Your task to perform on an android device: Go to ESPN.com Image 0: 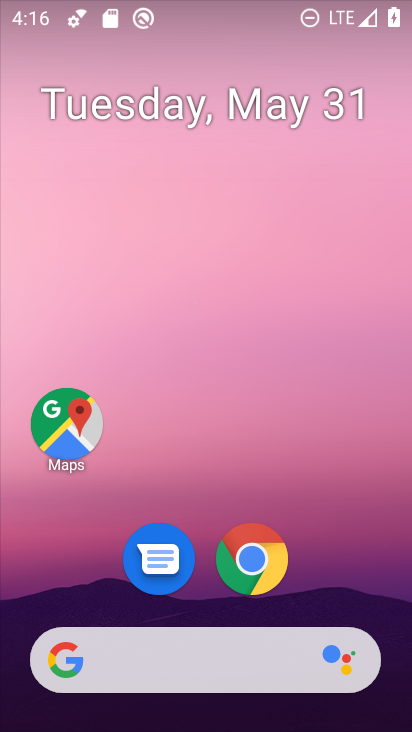
Step 0: click (253, 568)
Your task to perform on an android device: Go to ESPN.com Image 1: 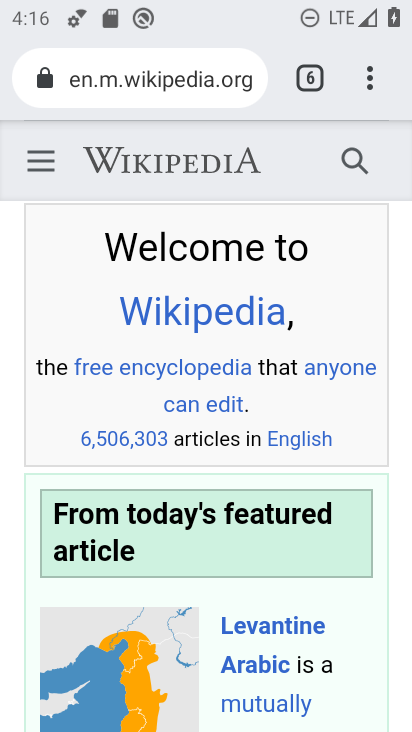
Step 1: click (371, 85)
Your task to perform on an android device: Go to ESPN.com Image 2: 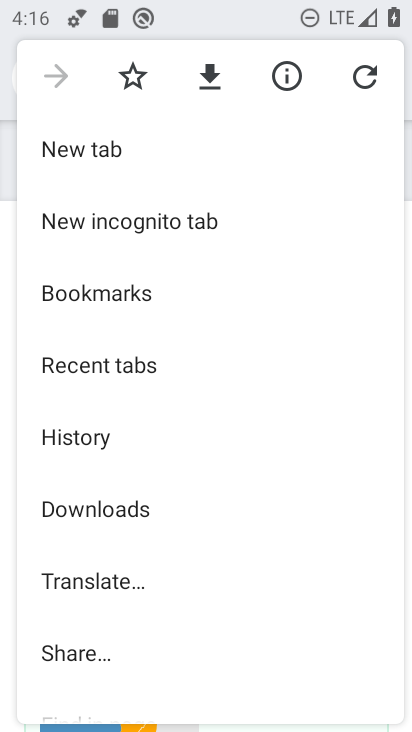
Step 2: click (90, 147)
Your task to perform on an android device: Go to ESPN.com Image 3: 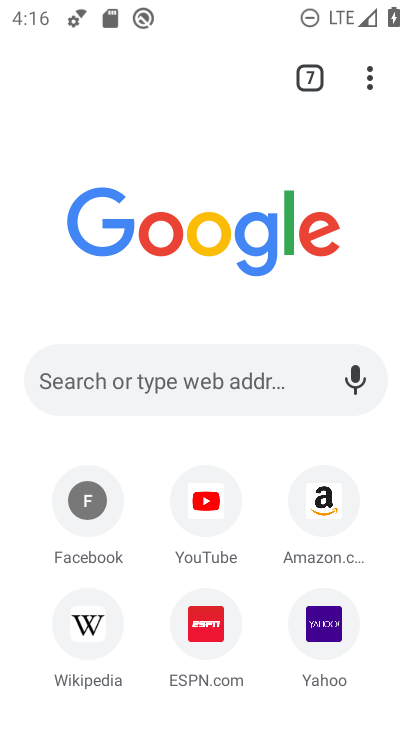
Step 3: click (209, 625)
Your task to perform on an android device: Go to ESPN.com Image 4: 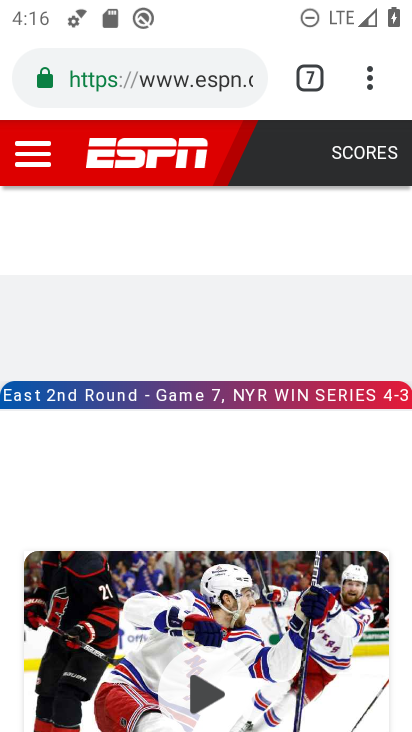
Step 4: task complete